Your task to perform on an android device: Open Google Image 0: 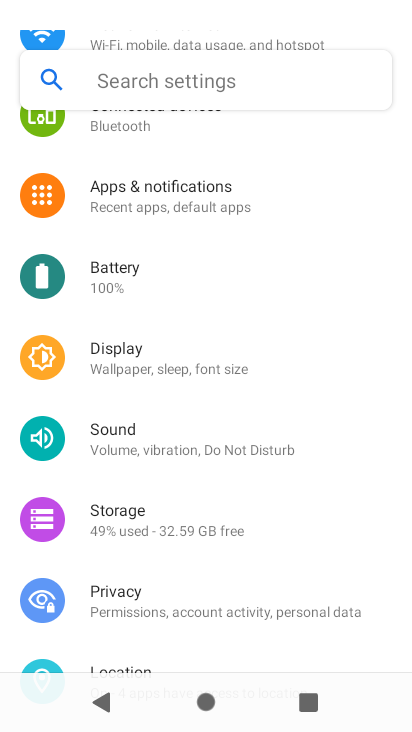
Step 0: press home button
Your task to perform on an android device: Open Google Image 1: 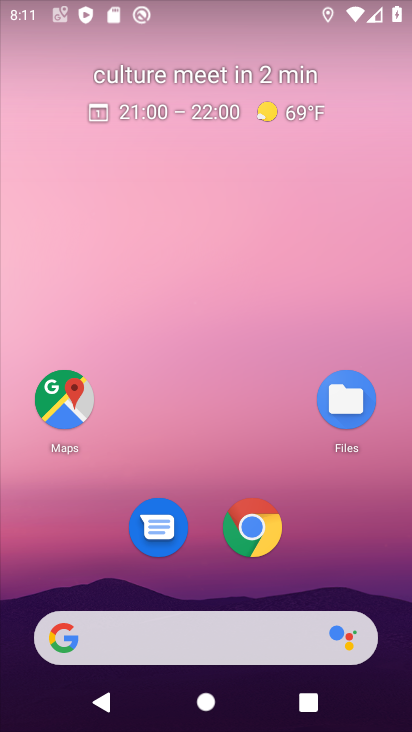
Step 1: drag from (244, 579) to (293, 98)
Your task to perform on an android device: Open Google Image 2: 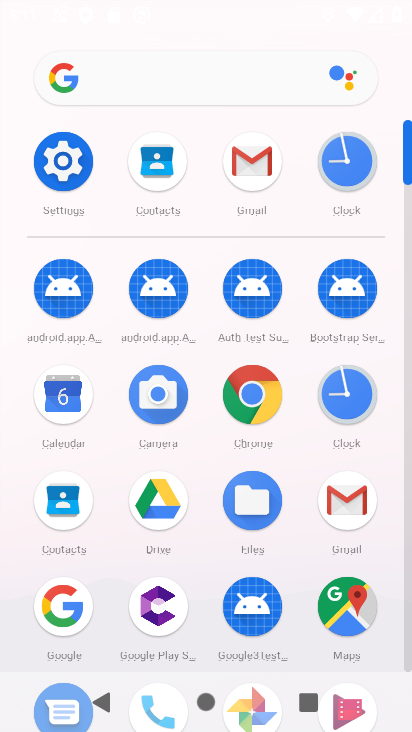
Step 2: click (72, 607)
Your task to perform on an android device: Open Google Image 3: 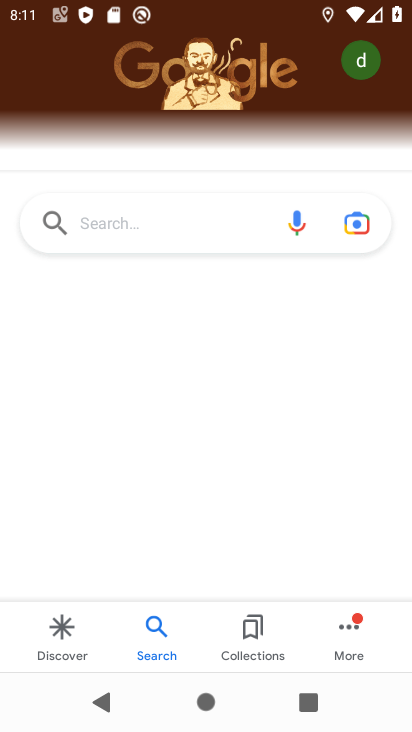
Step 3: task complete